Your task to perform on an android device: Search for Italian restaurants on Maps Image 0: 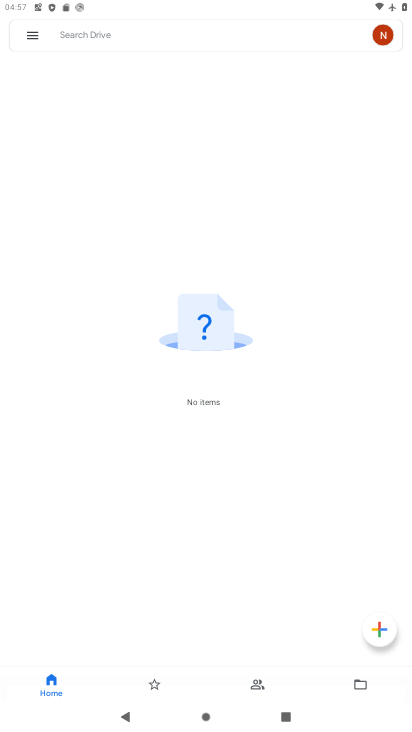
Step 0: press home button
Your task to perform on an android device: Search for Italian restaurants on Maps Image 1: 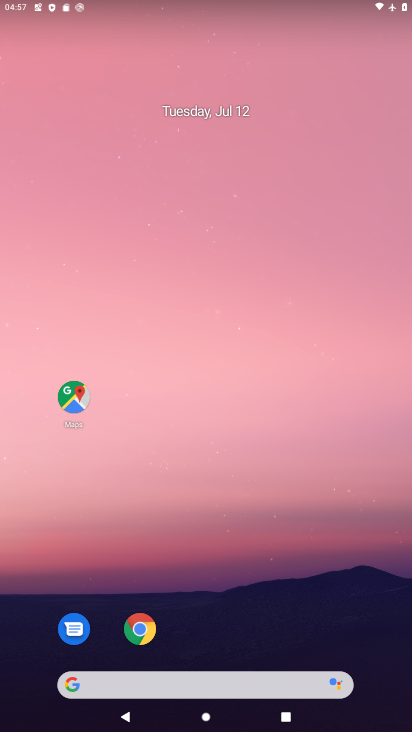
Step 1: drag from (254, 615) to (236, 78)
Your task to perform on an android device: Search for Italian restaurants on Maps Image 2: 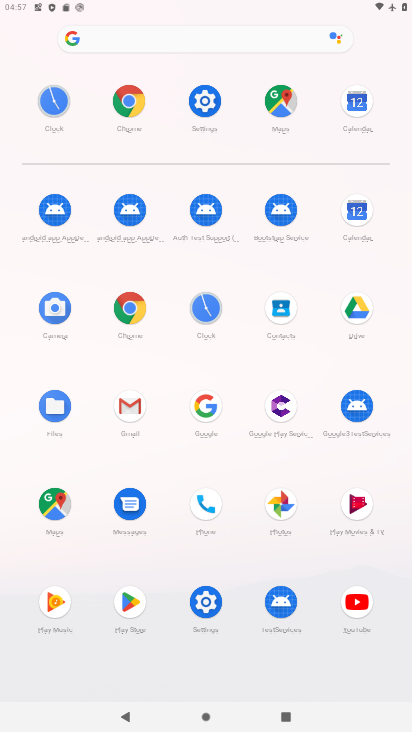
Step 2: click (58, 498)
Your task to perform on an android device: Search for Italian restaurants on Maps Image 3: 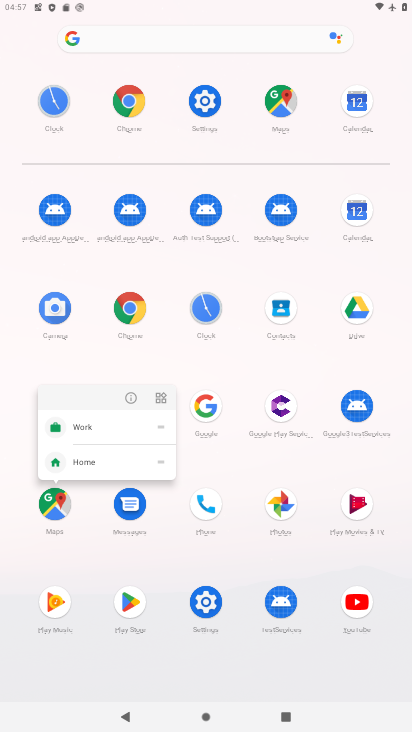
Step 3: click (46, 506)
Your task to perform on an android device: Search for Italian restaurants on Maps Image 4: 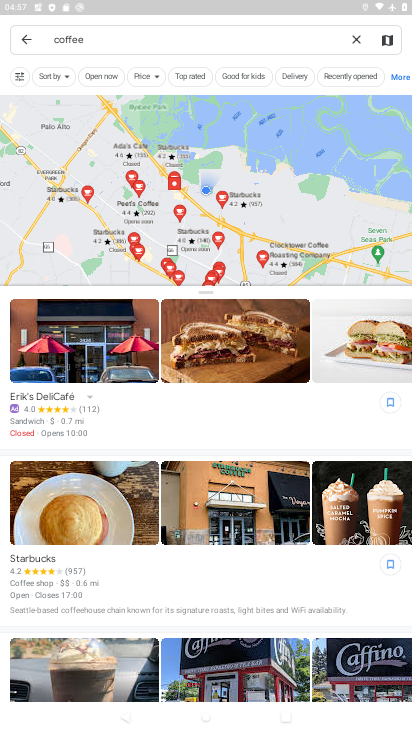
Step 4: click (121, 31)
Your task to perform on an android device: Search for Italian restaurants on Maps Image 5: 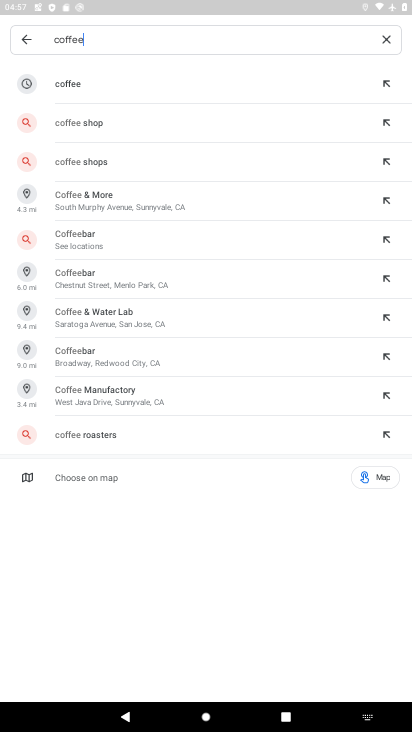
Step 5: click (387, 38)
Your task to perform on an android device: Search for Italian restaurants on Maps Image 6: 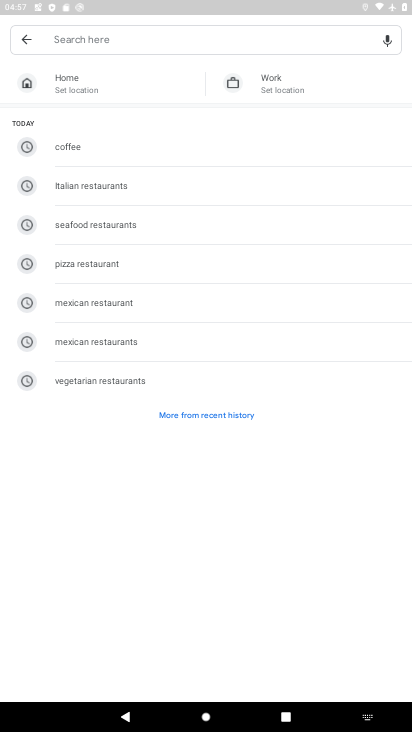
Step 6: click (113, 184)
Your task to perform on an android device: Search for Italian restaurants on Maps Image 7: 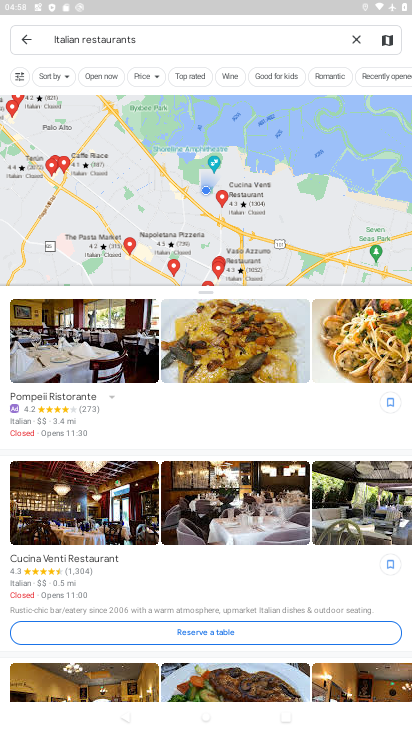
Step 7: task complete